Your task to perform on an android device: turn pop-ups on in chrome Image 0: 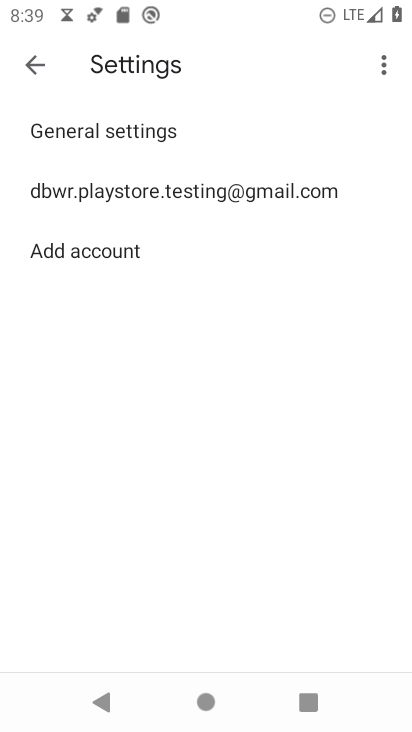
Step 0: press home button
Your task to perform on an android device: turn pop-ups on in chrome Image 1: 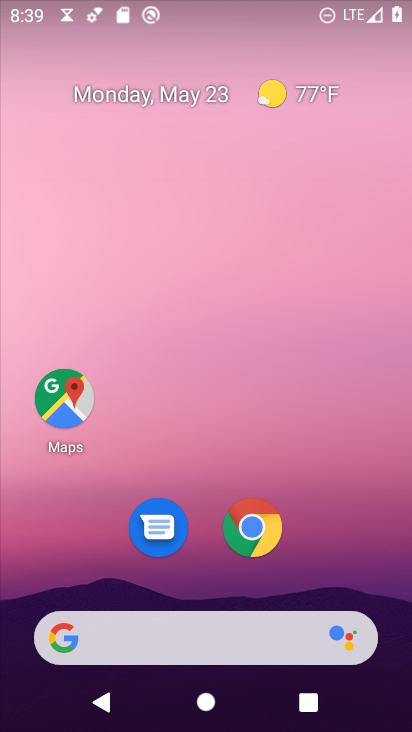
Step 1: drag from (243, 657) to (179, 11)
Your task to perform on an android device: turn pop-ups on in chrome Image 2: 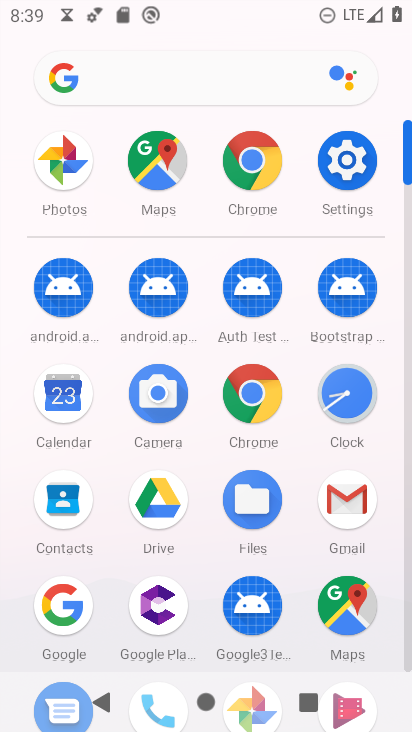
Step 2: click (338, 178)
Your task to perform on an android device: turn pop-ups on in chrome Image 3: 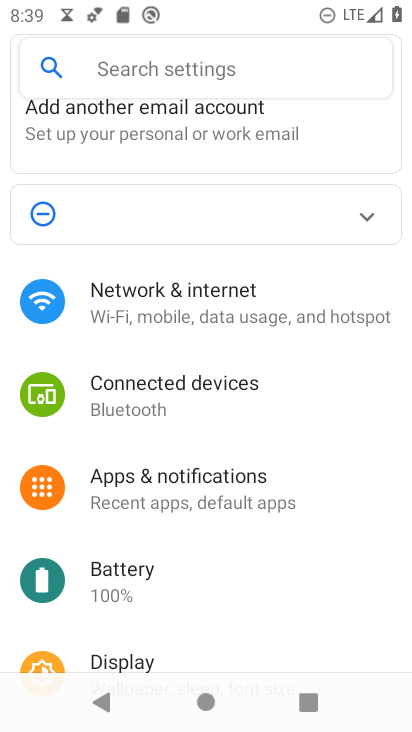
Step 3: press home button
Your task to perform on an android device: turn pop-ups on in chrome Image 4: 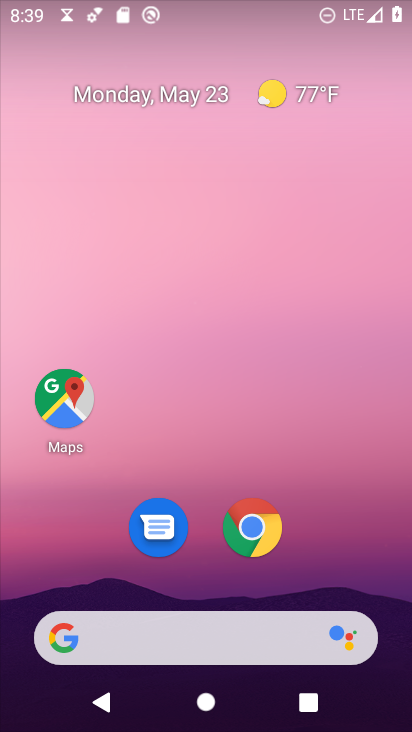
Step 4: drag from (255, 654) to (327, 105)
Your task to perform on an android device: turn pop-ups on in chrome Image 5: 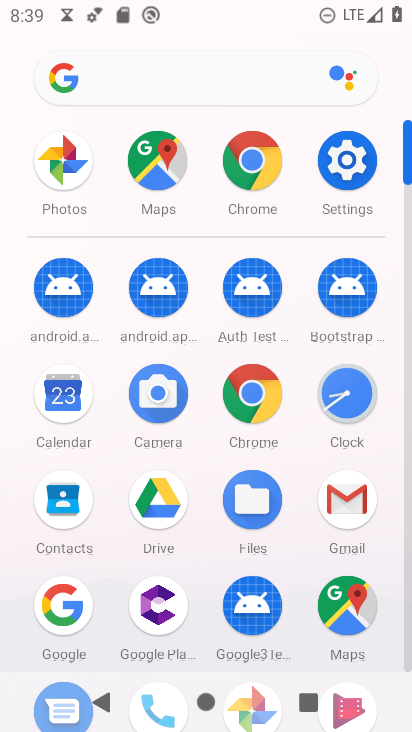
Step 5: click (273, 150)
Your task to perform on an android device: turn pop-ups on in chrome Image 6: 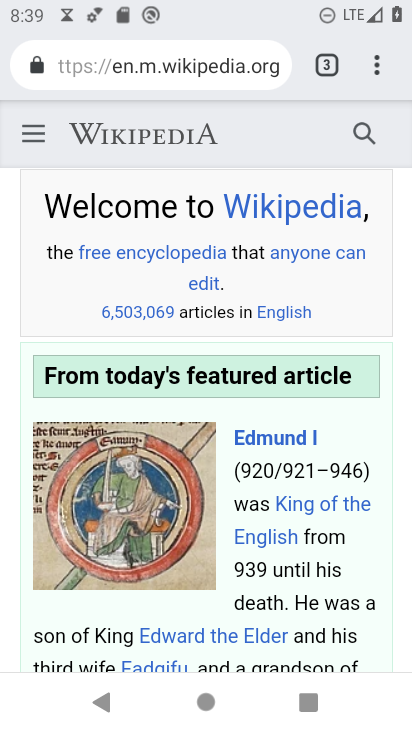
Step 6: click (370, 82)
Your task to perform on an android device: turn pop-ups on in chrome Image 7: 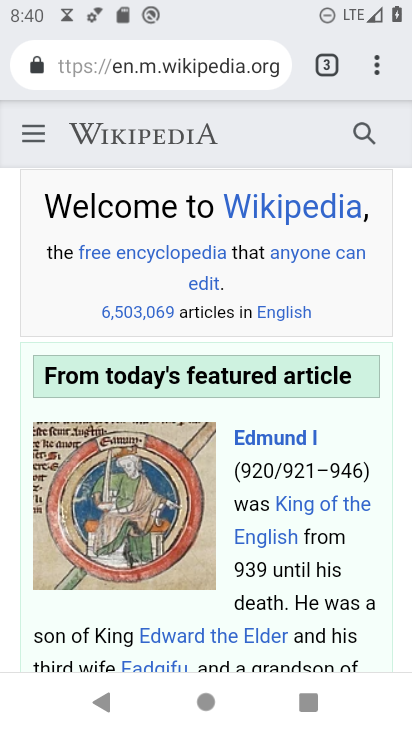
Step 7: click (376, 69)
Your task to perform on an android device: turn pop-ups on in chrome Image 8: 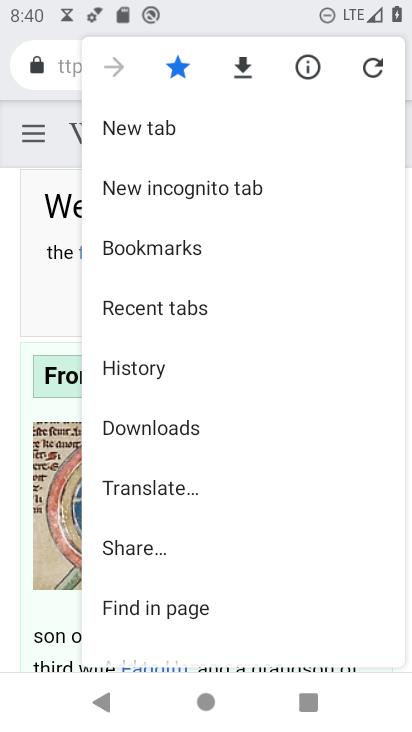
Step 8: drag from (157, 571) to (167, 143)
Your task to perform on an android device: turn pop-ups on in chrome Image 9: 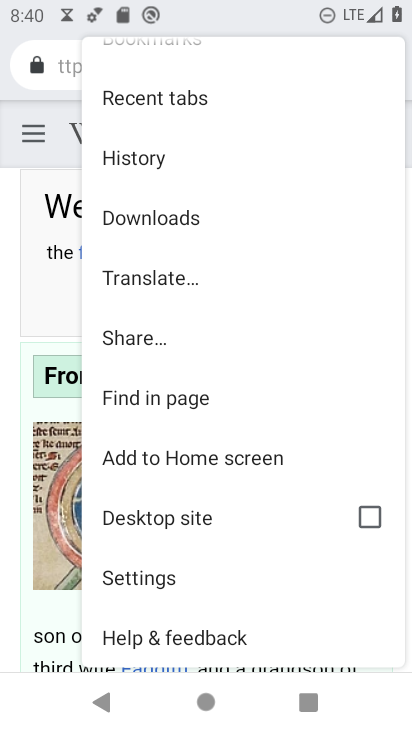
Step 9: click (171, 586)
Your task to perform on an android device: turn pop-ups on in chrome Image 10: 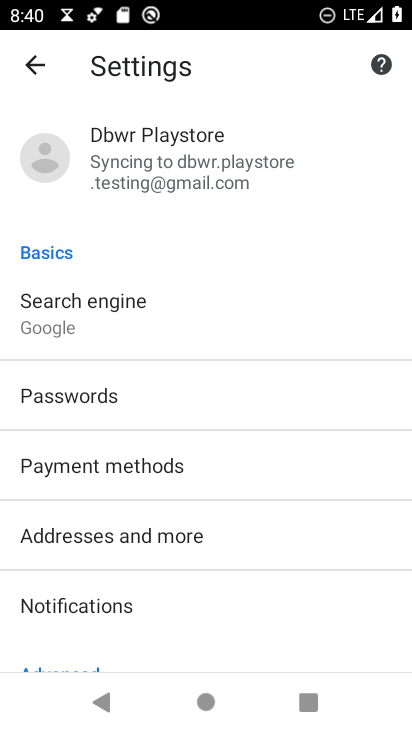
Step 10: drag from (171, 577) to (163, 294)
Your task to perform on an android device: turn pop-ups on in chrome Image 11: 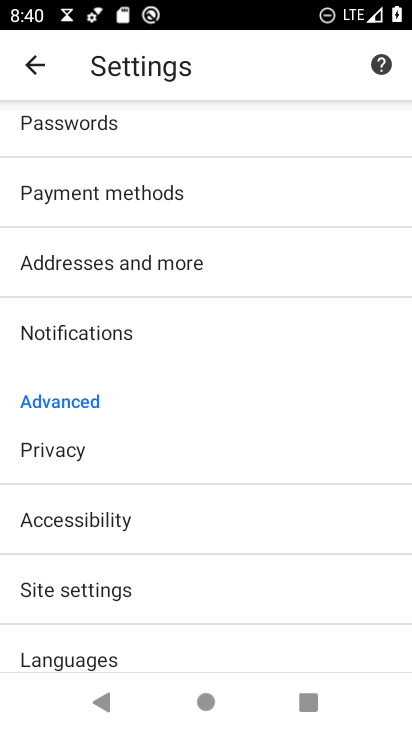
Step 11: click (112, 591)
Your task to perform on an android device: turn pop-ups on in chrome Image 12: 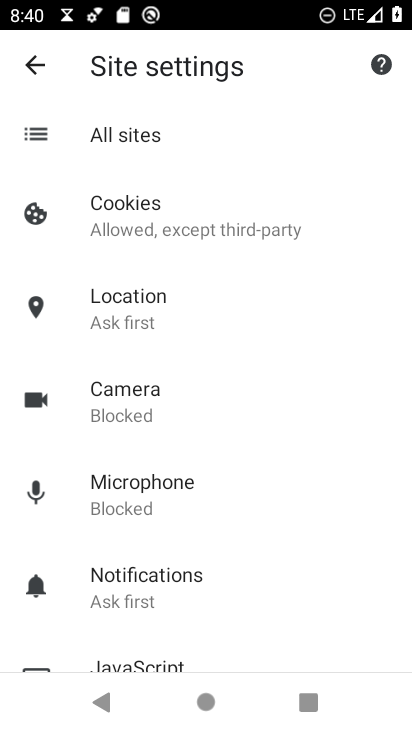
Step 12: drag from (174, 614) to (199, 185)
Your task to perform on an android device: turn pop-ups on in chrome Image 13: 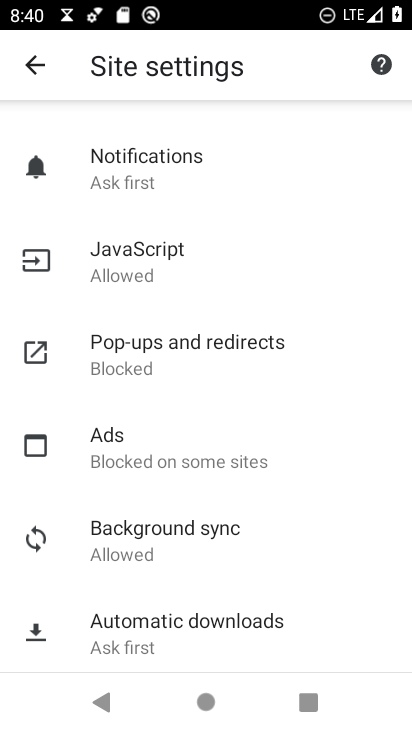
Step 13: click (181, 358)
Your task to perform on an android device: turn pop-ups on in chrome Image 14: 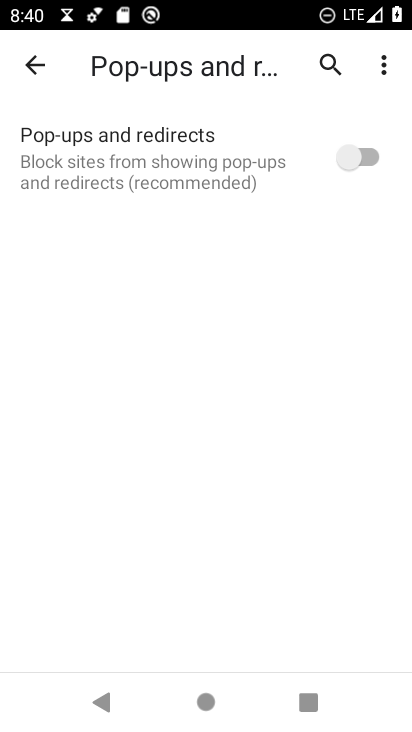
Step 14: click (353, 152)
Your task to perform on an android device: turn pop-ups on in chrome Image 15: 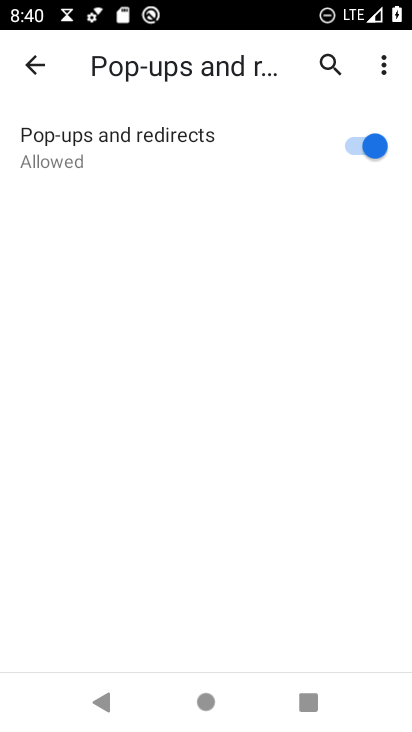
Step 15: task complete